Your task to perform on an android device: open the mobile data screen to see how much data has been used Image 0: 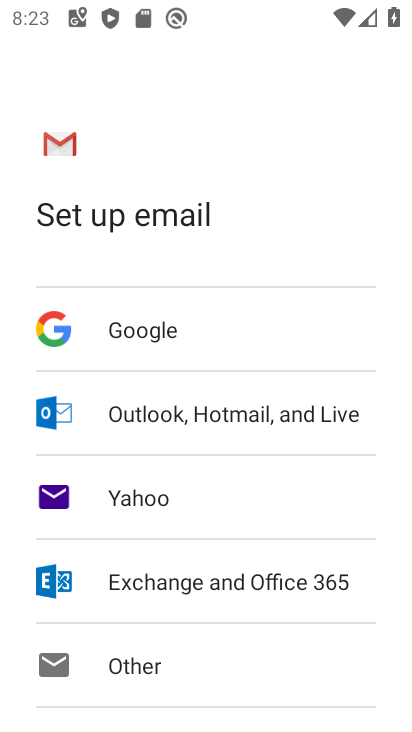
Step 0: press home button
Your task to perform on an android device: open the mobile data screen to see how much data has been used Image 1: 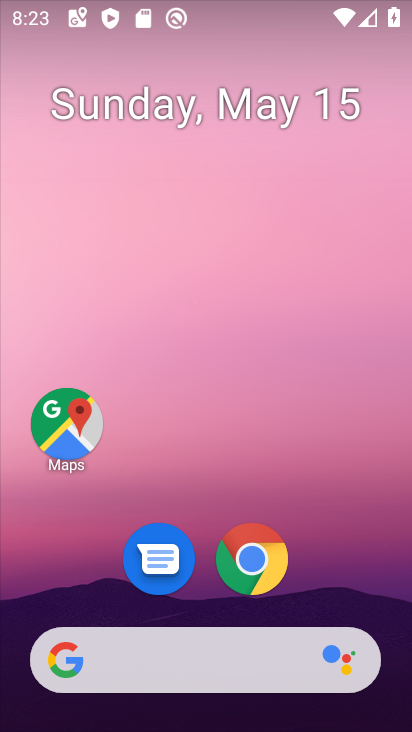
Step 1: drag from (354, 535) to (247, 64)
Your task to perform on an android device: open the mobile data screen to see how much data has been used Image 2: 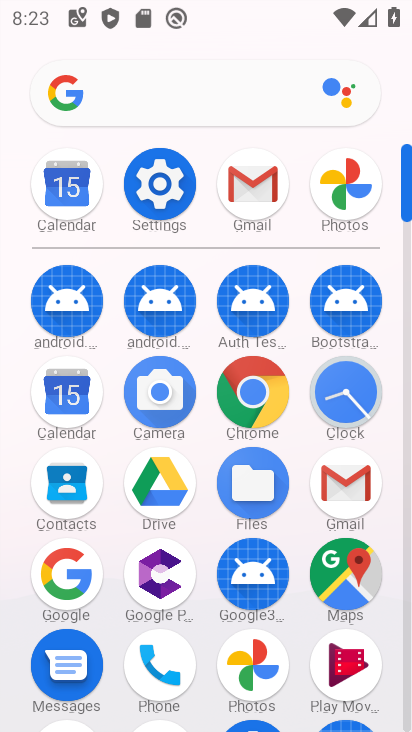
Step 2: click (190, 229)
Your task to perform on an android device: open the mobile data screen to see how much data has been used Image 3: 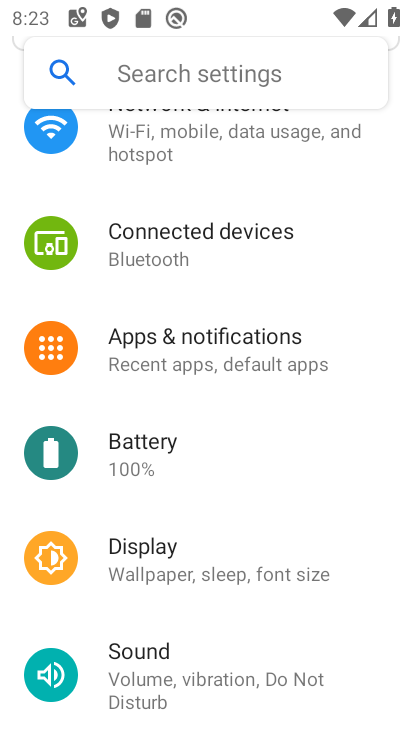
Step 3: click (252, 152)
Your task to perform on an android device: open the mobile data screen to see how much data has been used Image 4: 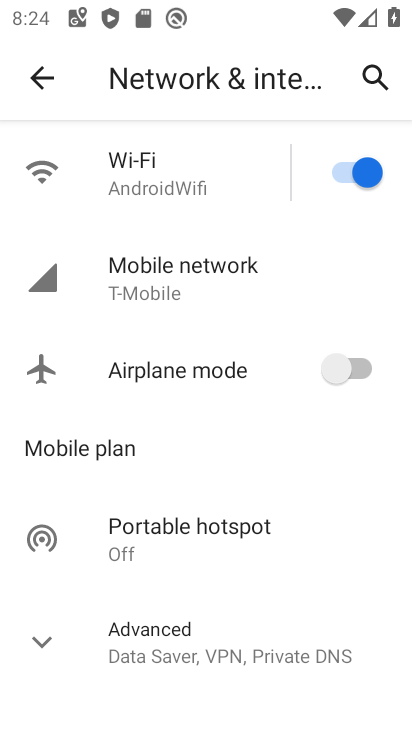
Step 4: click (172, 285)
Your task to perform on an android device: open the mobile data screen to see how much data has been used Image 5: 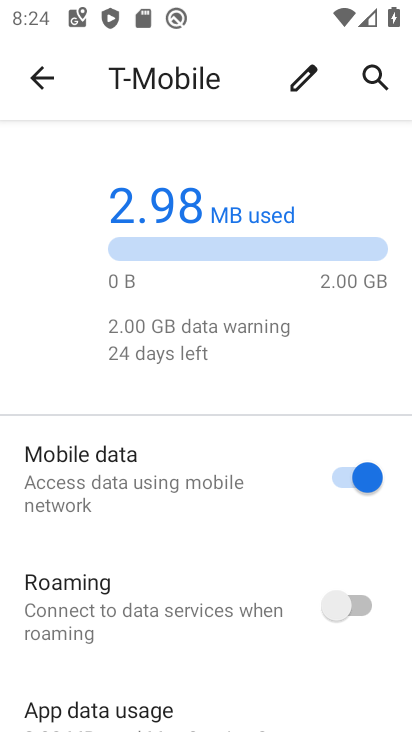
Step 5: task complete